Your task to perform on an android device: Empty the shopping cart on ebay. Add usb-a to the cart on ebay, then select checkout. Image 0: 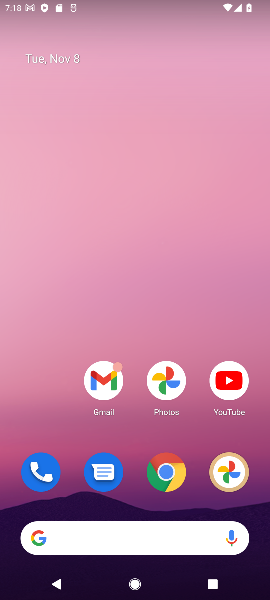
Step 0: click (168, 473)
Your task to perform on an android device: Empty the shopping cart on ebay. Add usb-a to the cart on ebay, then select checkout. Image 1: 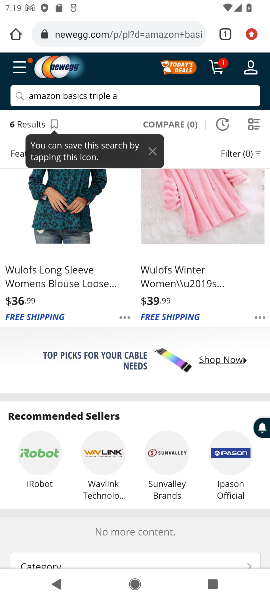
Step 1: click (141, 38)
Your task to perform on an android device: Empty the shopping cart on ebay. Add usb-a to the cart on ebay, then select checkout. Image 2: 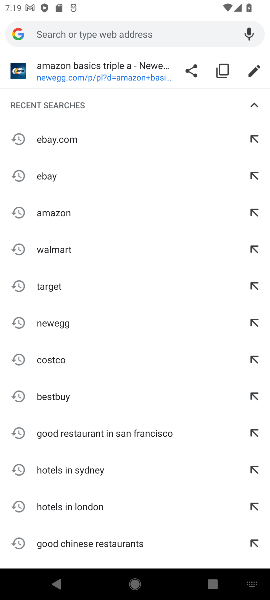
Step 2: click (52, 140)
Your task to perform on an android device: Empty the shopping cart on ebay. Add usb-a to the cart on ebay, then select checkout. Image 3: 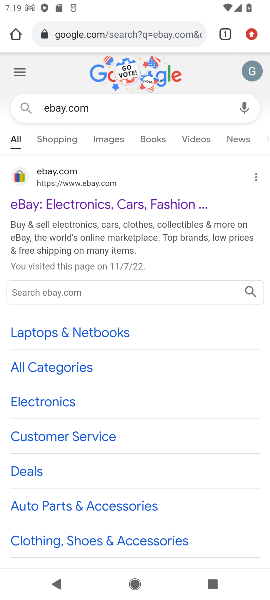
Step 3: click (92, 201)
Your task to perform on an android device: Empty the shopping cart on ebay. Add usb-a to the cart on ebay, then select checkout. Image 4: 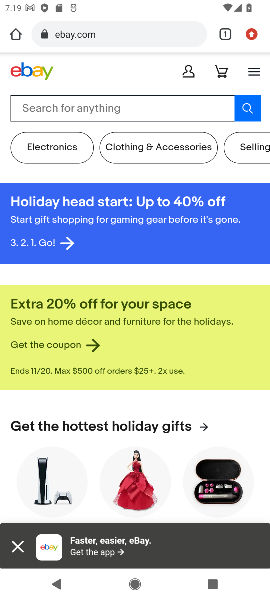
Step 4: click (69, 107)
Your task to perform on an android device: Empty the shopping cart on ebay. Add usb-a to the cart on ebay, then select checkout. Image 5: 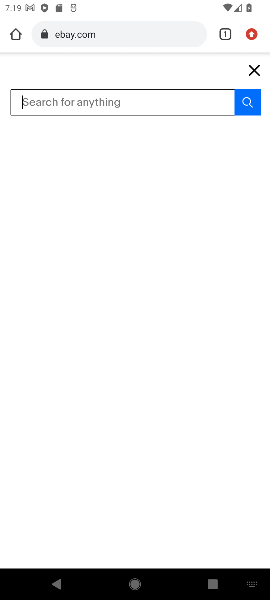
Step 5: type "usb-a "
Your task to perform on an android device: Empty the shopping cart on ebay. Add usb-a to the cart on ebay, then select checkout. Image 6: 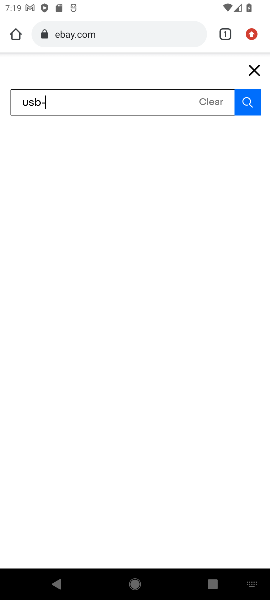
Step 6: press enter
Your task to perform on an android device: Empty the shopping cart on ebay. Add usb-a to the cart on ebay, then select checkout. Image 7: 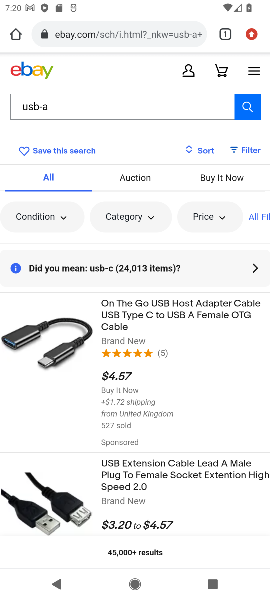
Step 7: task complete